Your task to perform on an android device: turn on bluetooth scan Image 0: 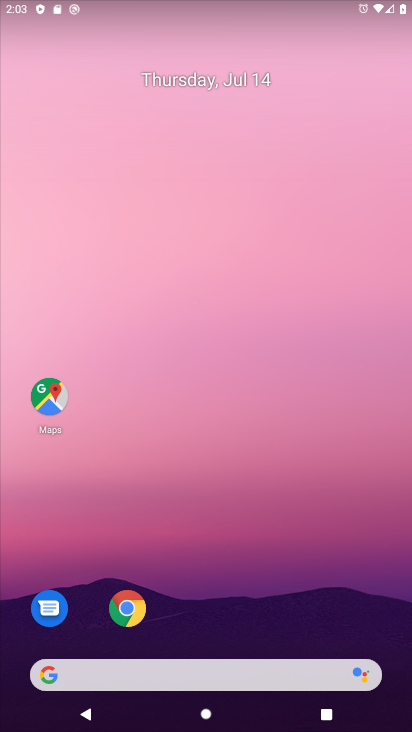
Step 0: drag from (249, 725) to (210, 87)
Your task to perform on an android device: turn on bluetooth scan Image 1: 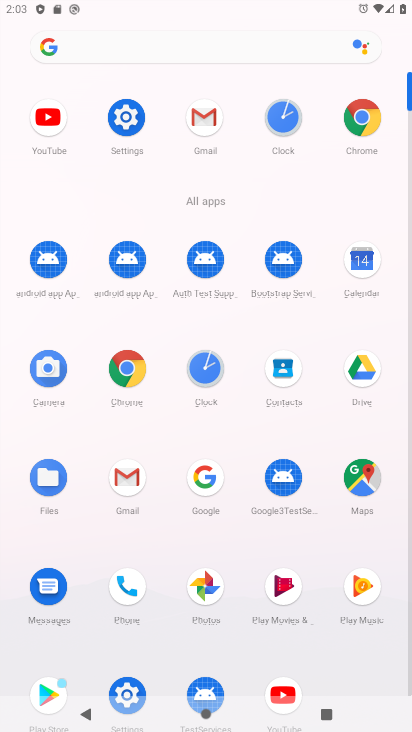
Step 1: click (126, 118)
Your task to perform on an android device: turn on bluetooth scan Image 2: 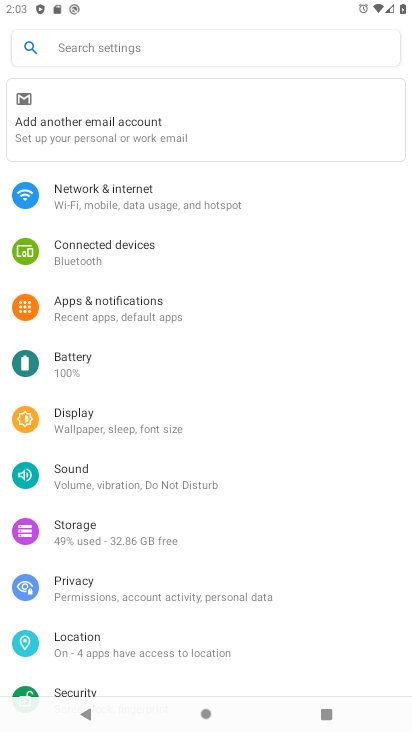
Step 2: click (85, 646)
Your task to perform on an android device: turn on bluetooth scan Image 3: 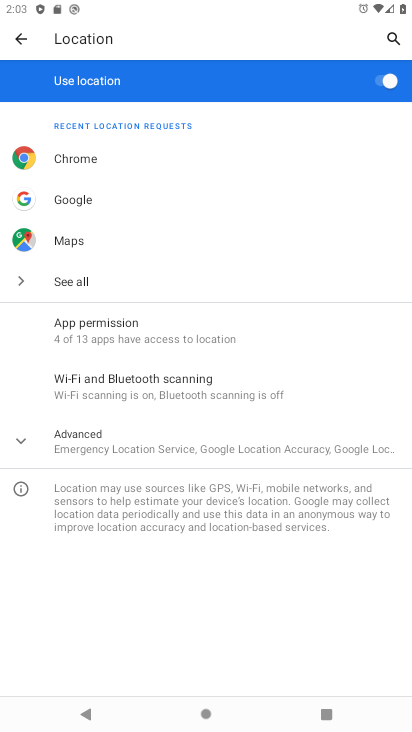
Step 3: click (130, 378)
Your task to perform on an android device: turn on bluetooth scan Image 4: 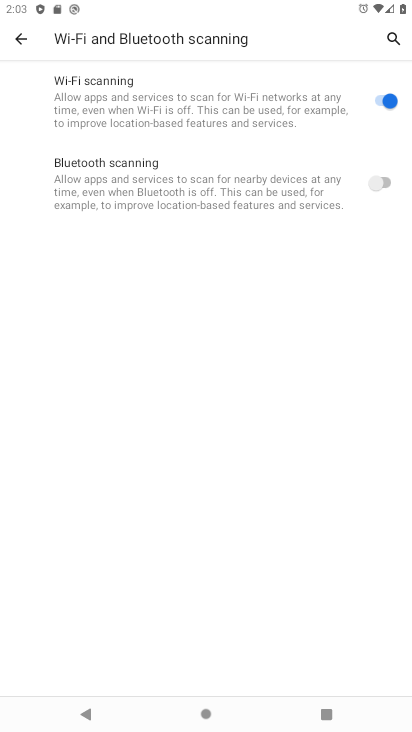
Step 4: click (382, 179)
Your task to perform on an android device: turn on bluetooth scan Image 5: 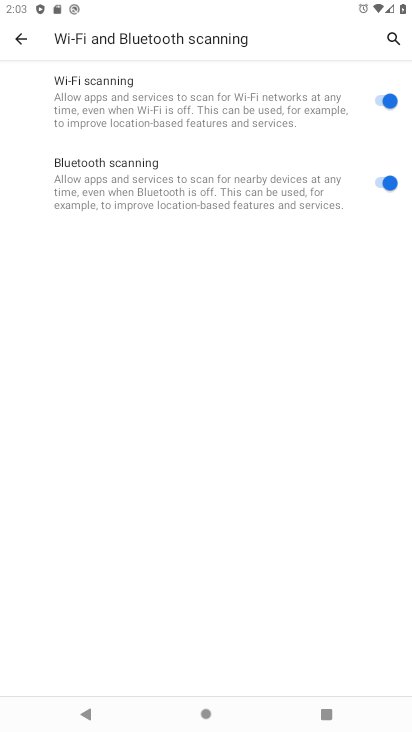
Step 5: task complete